Your task to perform on an android device: change notifications settings Image 0: 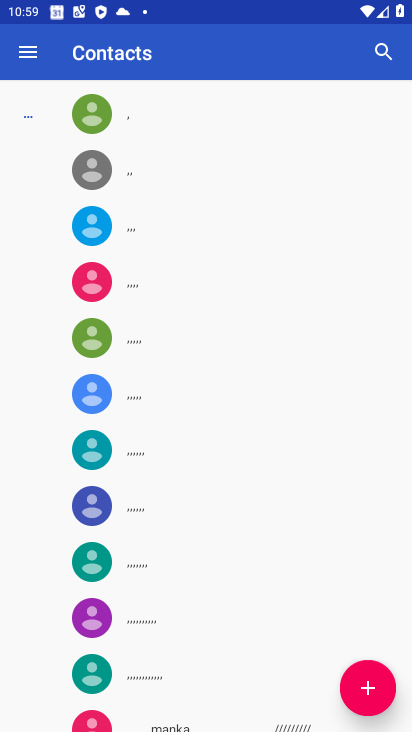
Step 0: press home button
Your task to perform on an android device: change notifications settings Image 1: 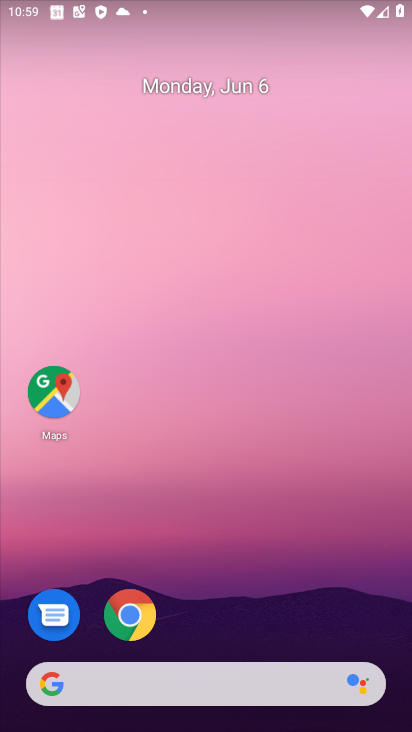
Step 1: drag from (254, 622) to (231, 1)
Your task to perform on an android device: change notifications settings Image 2: 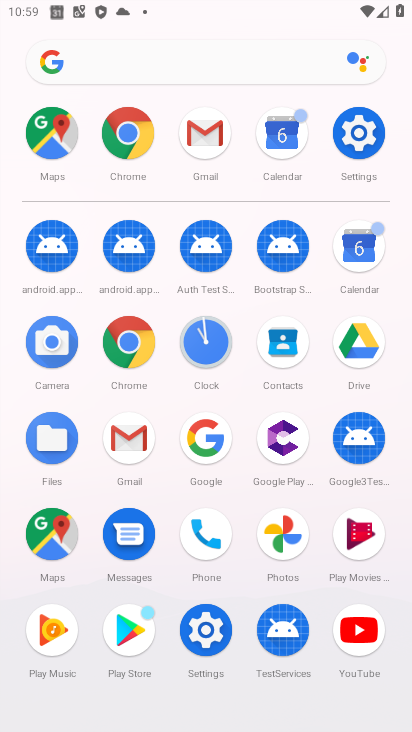
Step 2: click (202, 645)
Your task to perform on an android device: change notifications settings Image 3: 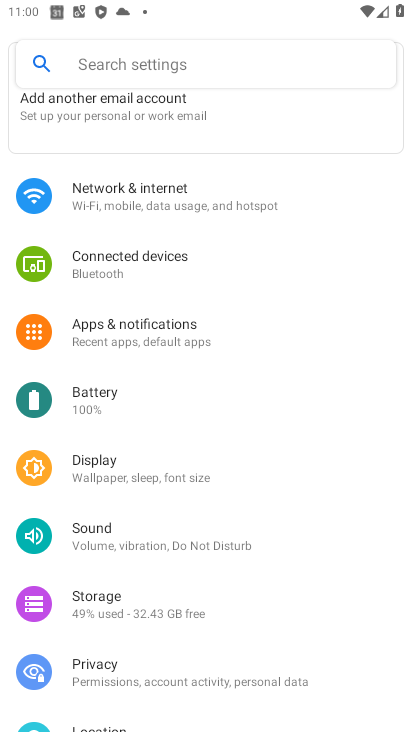
Step 3: task complete